Your task to perform on an android device: open app "TextNow: Call + Text Unlimited" (install if not already installed) Image 0: 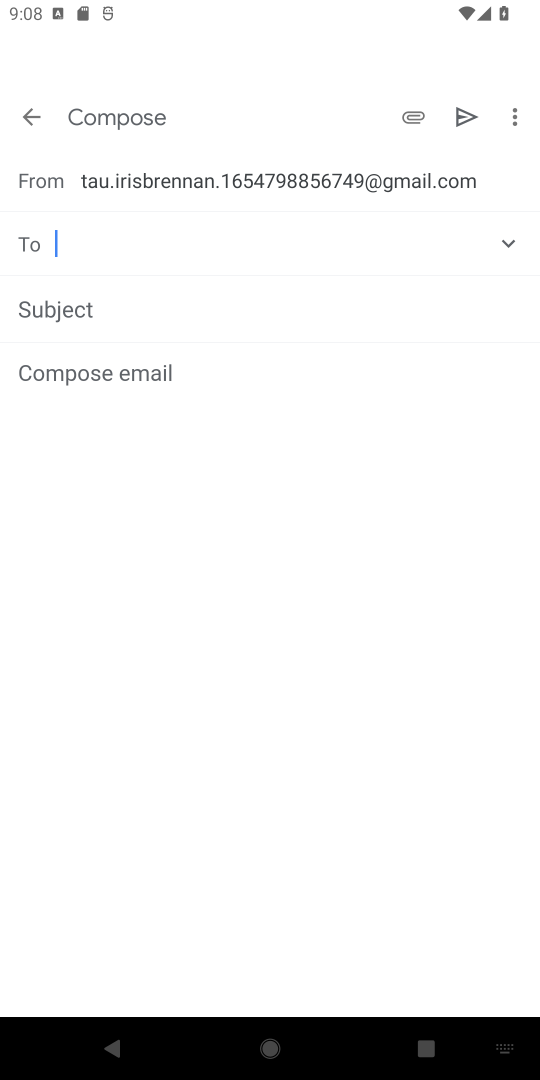
Step 0: press home button
Your task to perform on an android device: open app "TextNow: Call + Text Unlimited" (install if not already installed) Image 1: 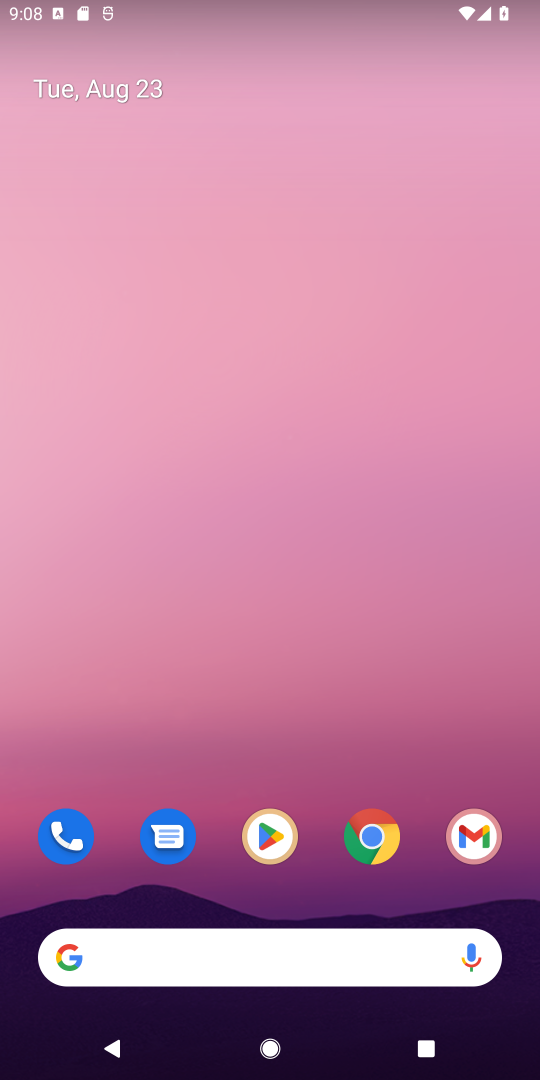
Step 1: click (274, 838)
Your task to perform on an android device: open app "TextNow: Call + Text Unlimited" (install if not already installed) Image 2: 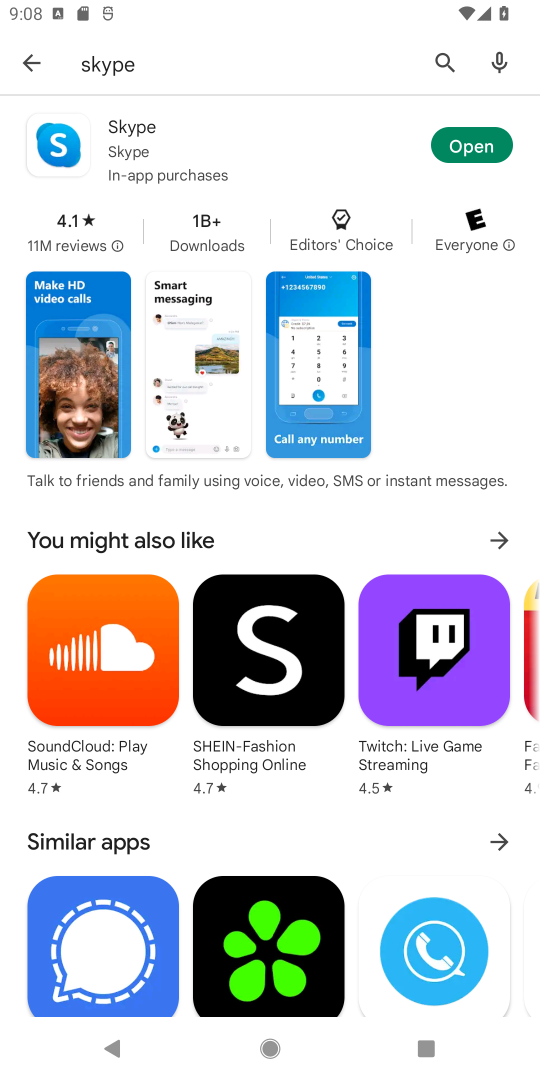
Step 2: click (445, 57)
Your task to perform on an android device: open app "TextNow: Call + Text Unlimited" (install if not already installed) Image 3: 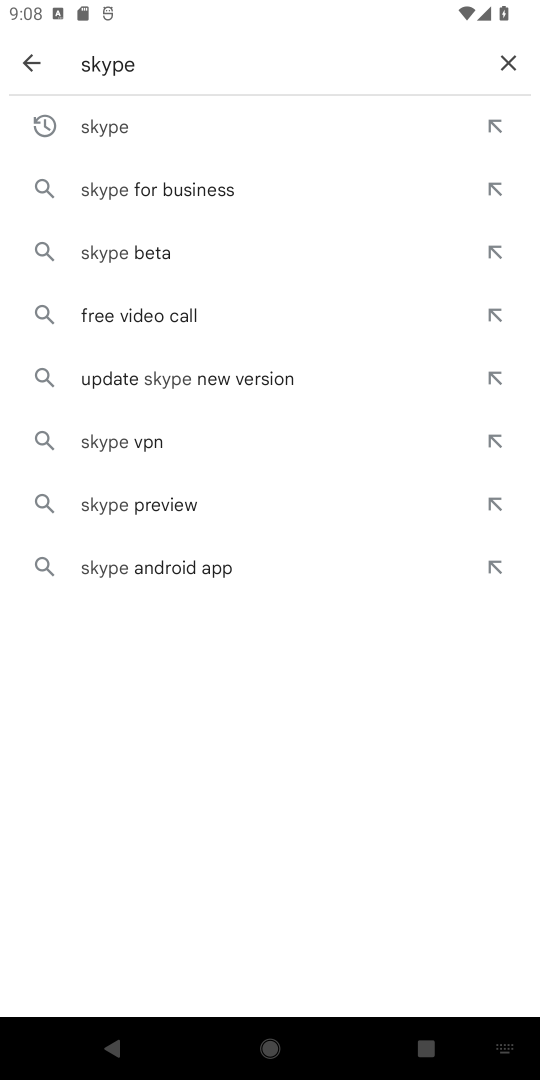
Step 3: click (501, 45)
Your task to perform on an android device: open app "TextNow: Call + Text Unlimited" (install if not already installed) Image 4: 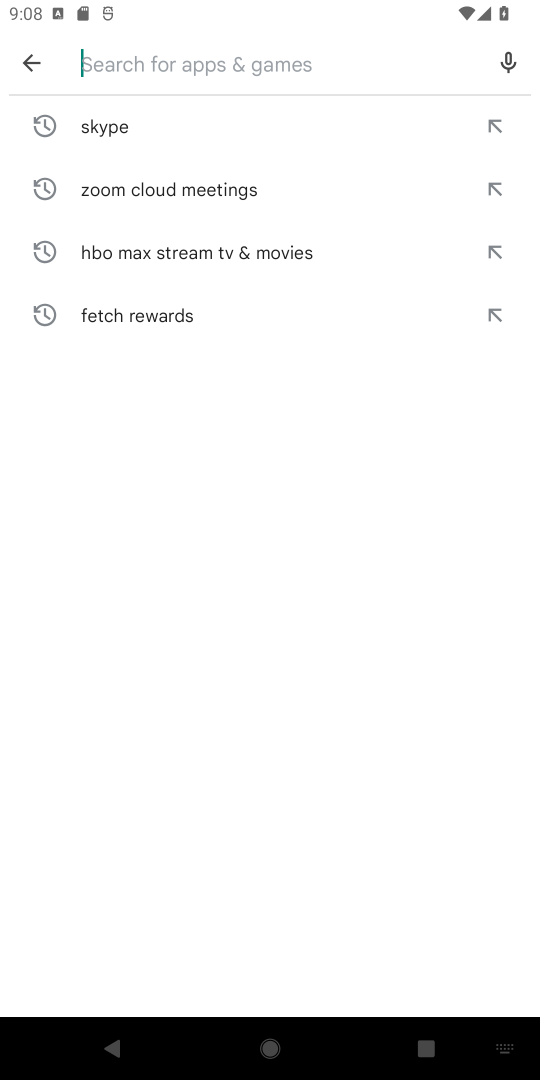
Step 4: type "TextNow: Call + Text Unlimited"
Your task to perform on an android device: open app "TextNow: Call + Text Unlimited" (install if not already installed) Image 5: 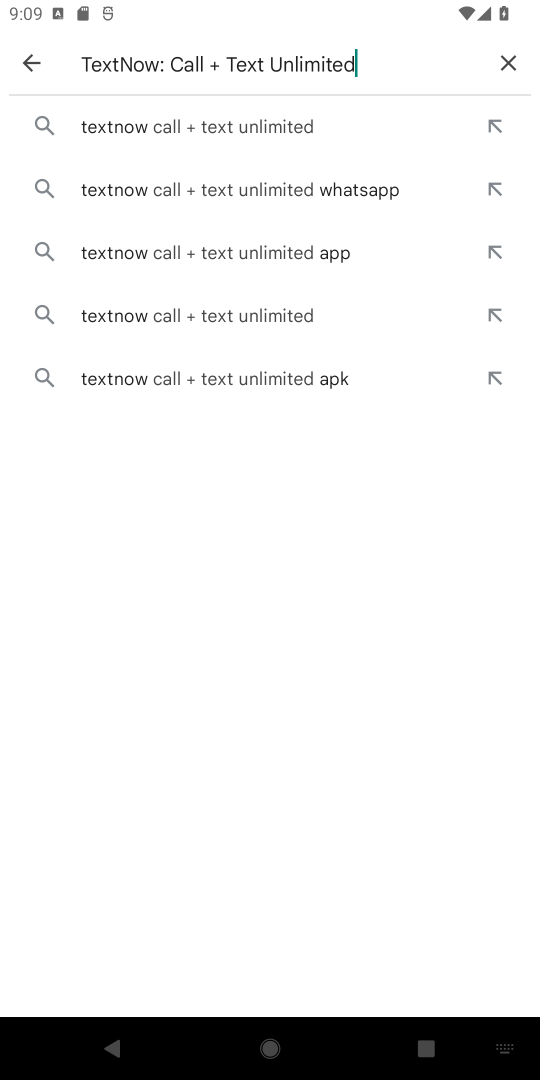
Step 5: click (229, 129)
Your task to perform on an android device: open app "TextNow: Call + Text Unlimited" (install if not already installed) Image 6: 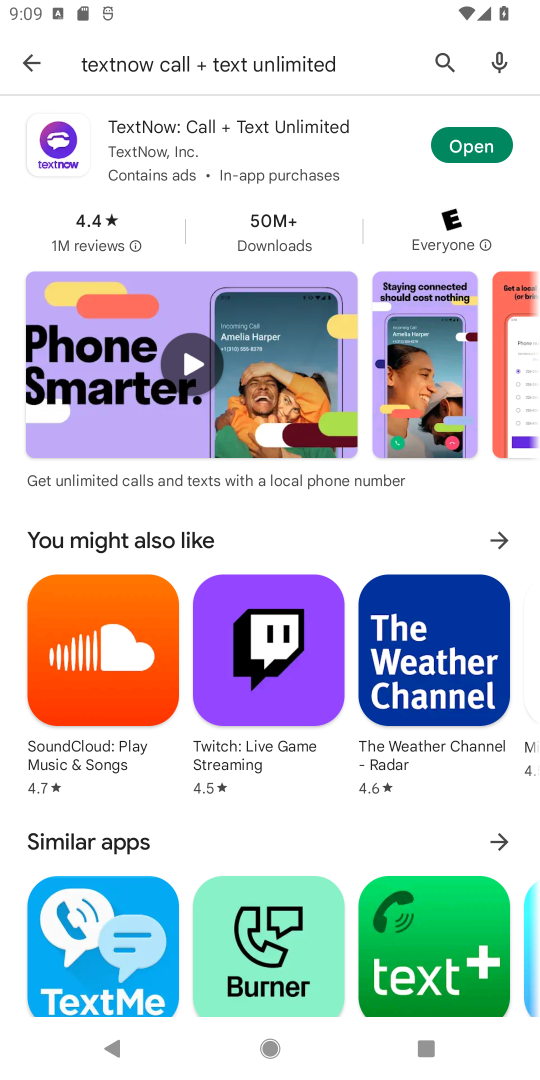
Step 6: click (478, 140)
Your task to perform on an android device: open app "TextNow: Call + Text Unlimited" (install if not already installed) Image 7: 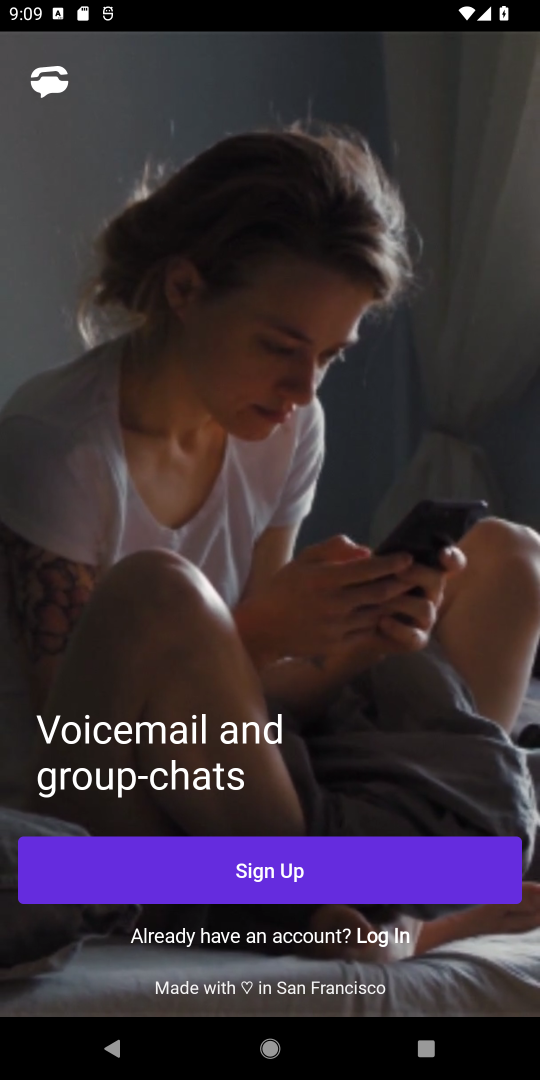
Step 7: task complete